Your task to perform on an android device: turn off smart reply in the gmail app Image 0: 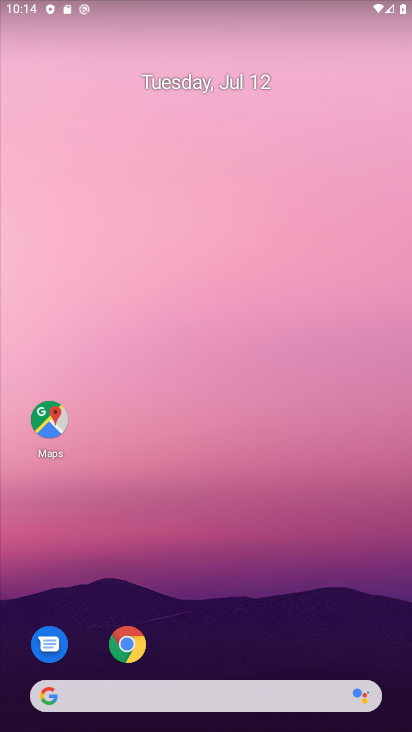
Step 0: drag from (142, 679) to (166, 270)
Your task to perform on an android device: turn off smart reply in the gmail app Image 1: 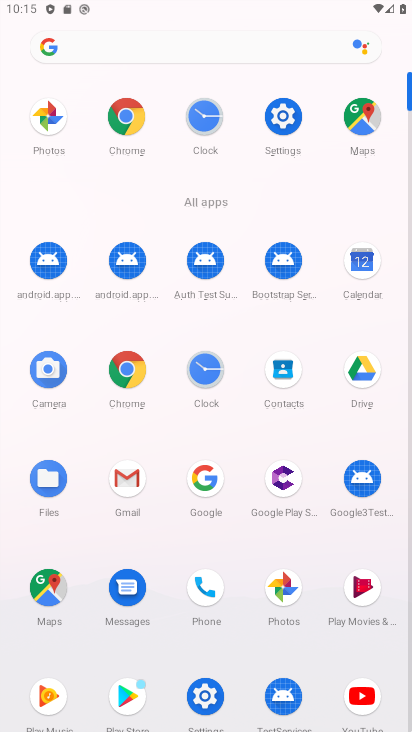
Step 1: click (134, 477)
Your task to perform on an android device: turn off smart reply in the gmail app Image 2: 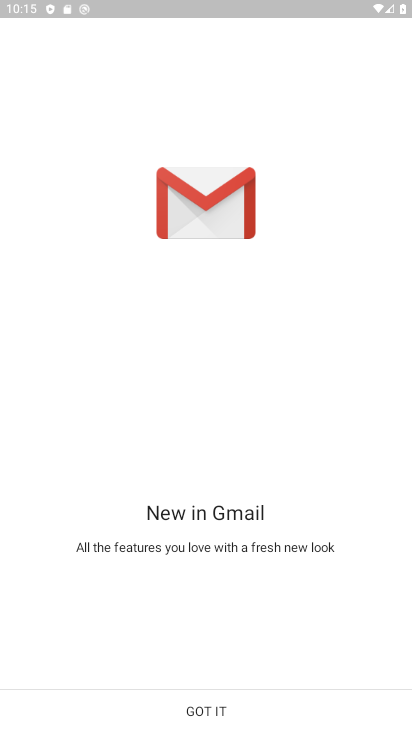
Step 2: click (219, 700)
Your task to perform on an android device: turn off smart reply in the gmail app Image 3: 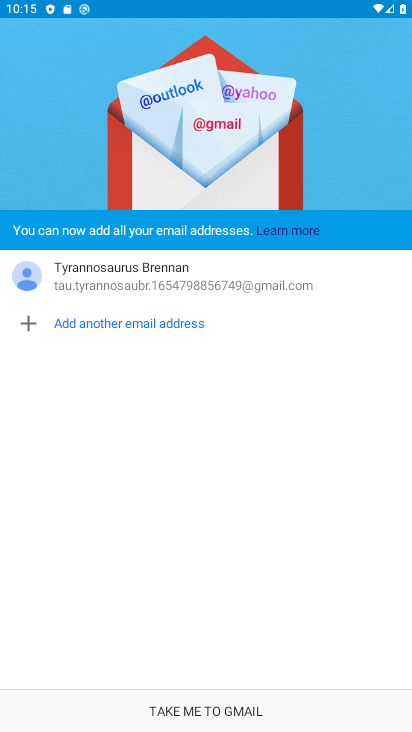
Step 3: click (219, 701)
Your task to perform on an android device: turn off smart reply in the gmail app Image 4: 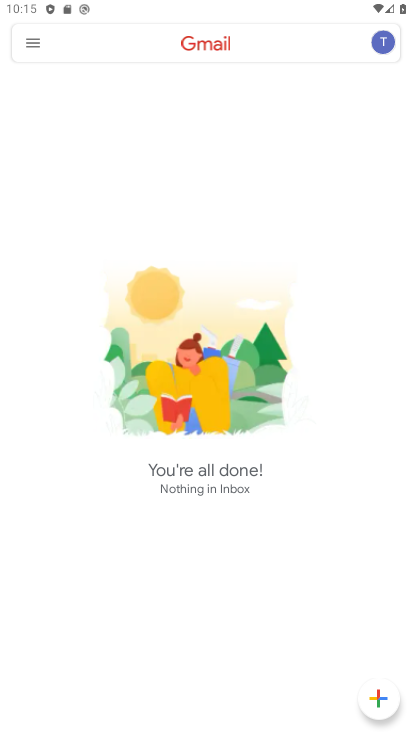
Step 4: click (30, 44)
Your task to perform on an android device: turn off smart reply in the gmail app Image 5: 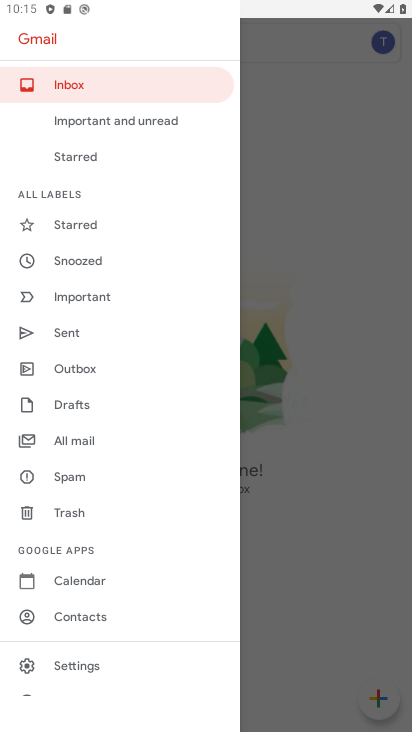
Step 5: click (70, 663)
Your task to perform on an android device: turn off smart reply in the gmail app Image 6: 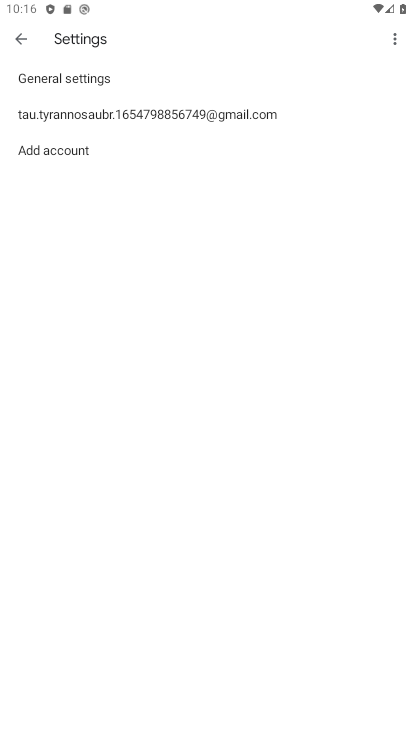
Step 6: click (95, 101)
Your task to perform on an android device: turn off smart reply in the gmail app Image 7: 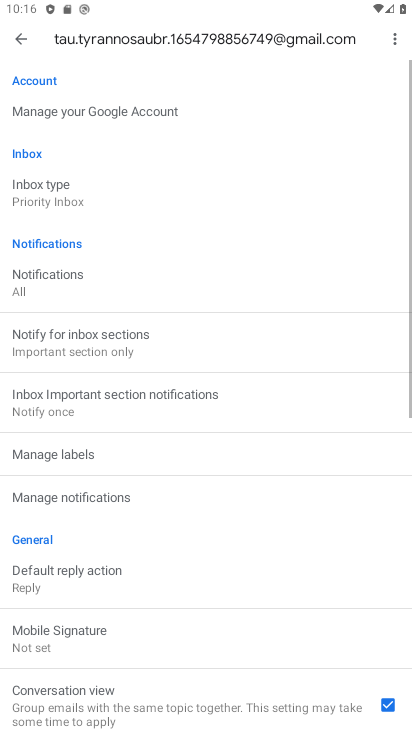
Step 7: drag from (148, 645) to (153, 309)
Your task to perform on an android device: turn off smart reply in the gmail app Image 8: 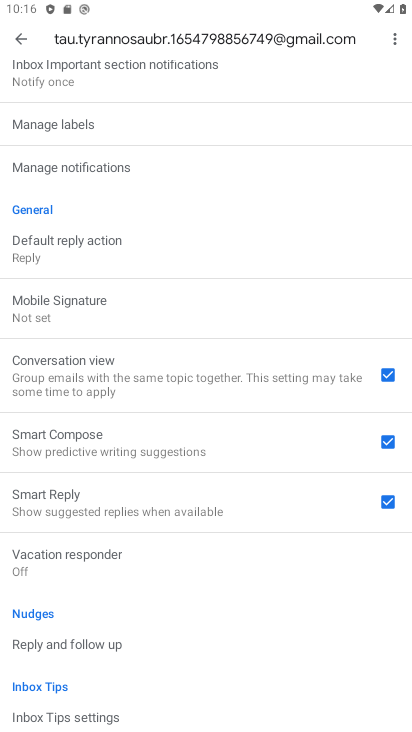
Step 8: click (384, 498)
Your task to perform on an android device: turn off smart reply in the gmail app Image 9: 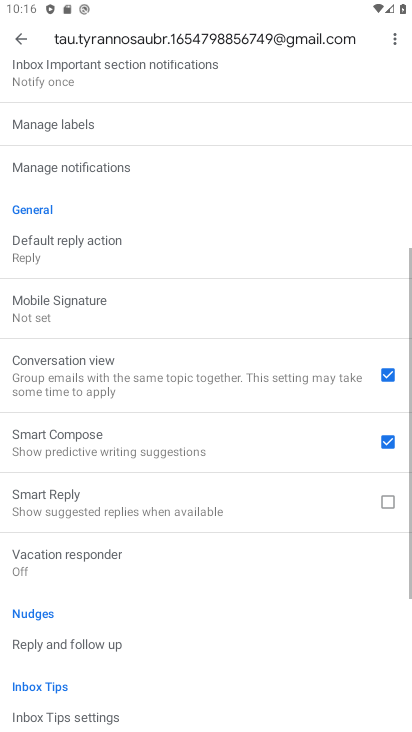
Step 9: task complete